Your task to perform on an android device: Open Chrome and go to the settings page Image 0: 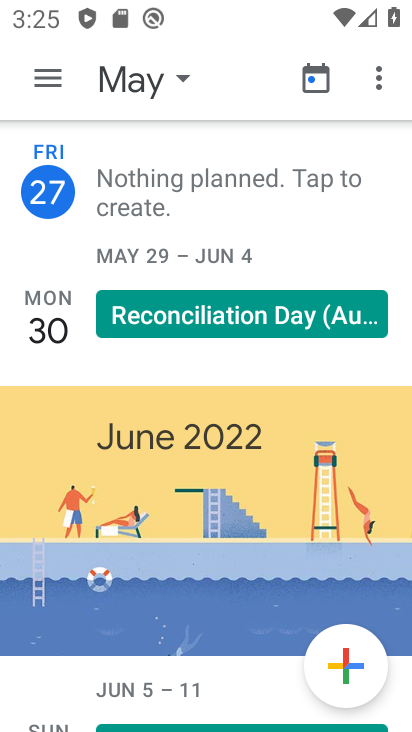
Step 0: press home button
Your task to perform on an android device: Open Chrome and go to the settings page Image 1: 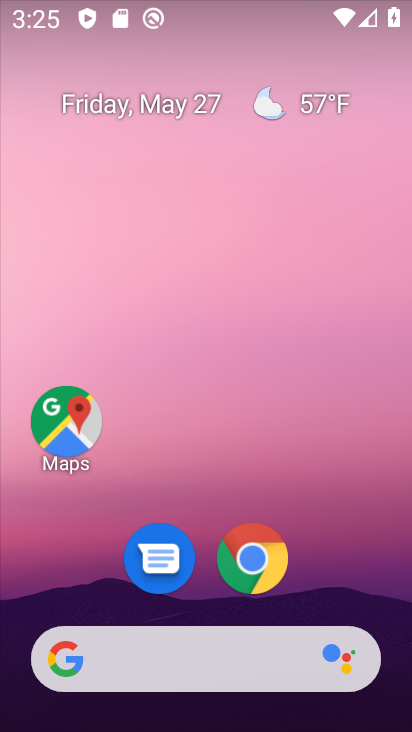
Step 1: click (265, 591)
Your task to perform on an android device: Open Chrome and go to the settings page Image 2: 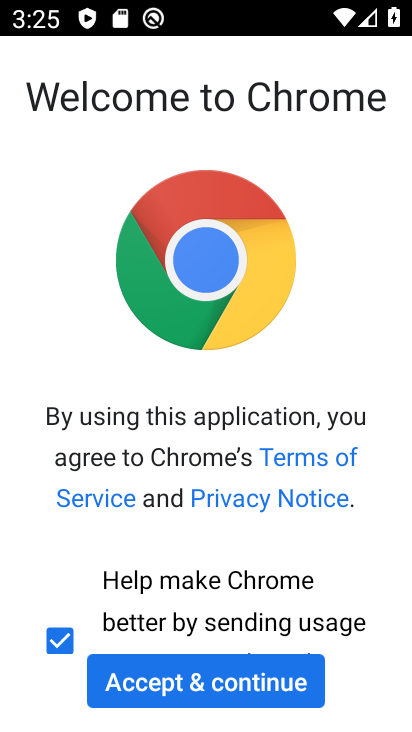
Step 2: click (173, 685)
Your task to perform on an android device: Open Chrome and go to the settings page Image 3: 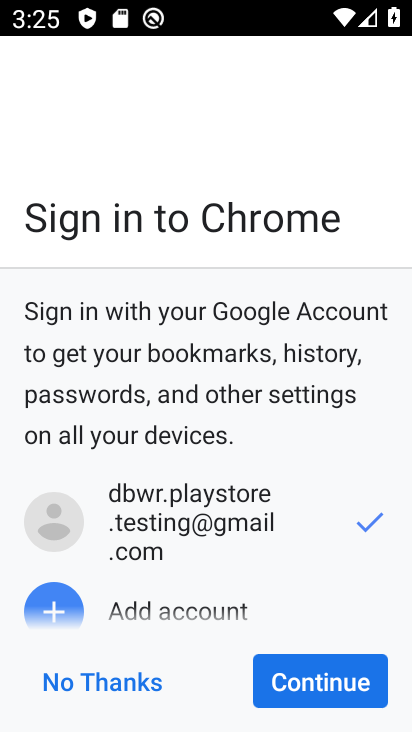
Step 3: click (286, 689)
Your task to perform on an android device: Open Chrome and go to the settings page Image 4: 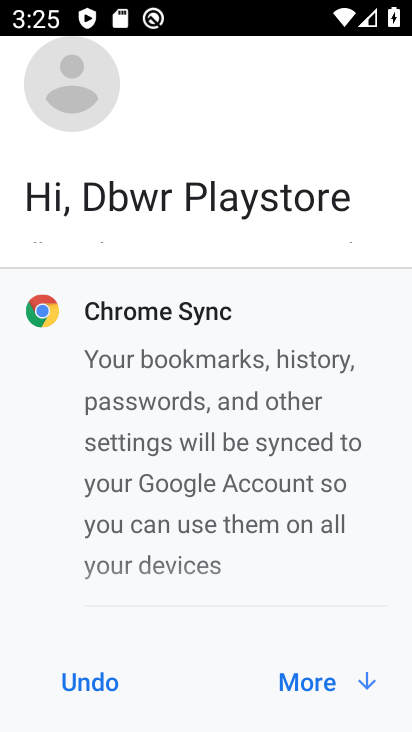
Step 4: click (286, 689)
Your task to perform on an android device: Open Chrome and go to the settings page Image 5: 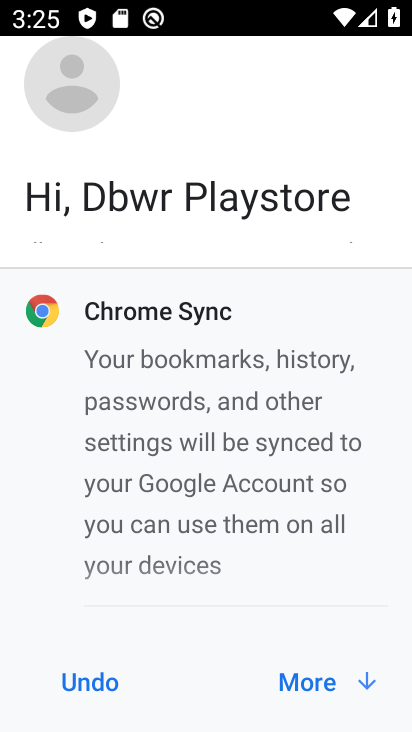
Step 5: click (286, 689)
Your task to perform on an android device: Open Chrome and go to the settings page Image 6: 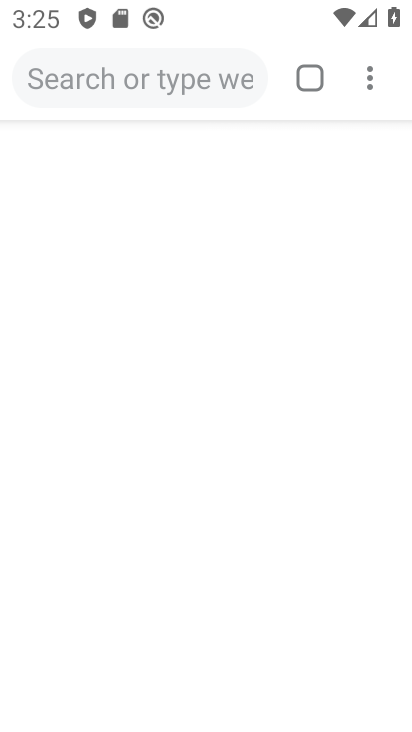
Step 6: click (286, 689)
Your task to perform on an android device: Open Chrome and go to the settings page Image 7: 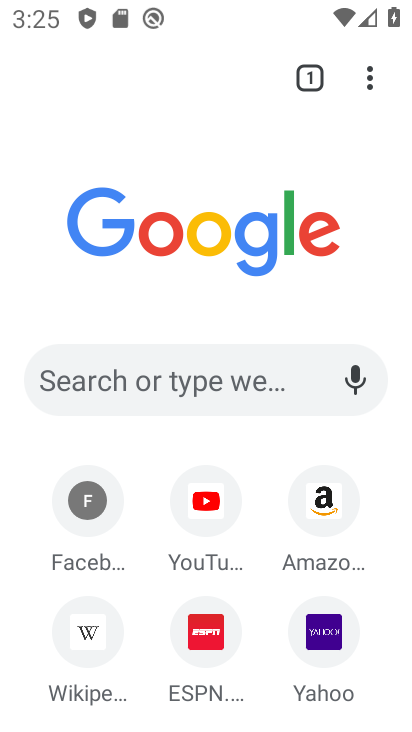
Step 7: click (380, 81)
Your task to perform on an android device: Open Chrome and go to the settings page Image 8: 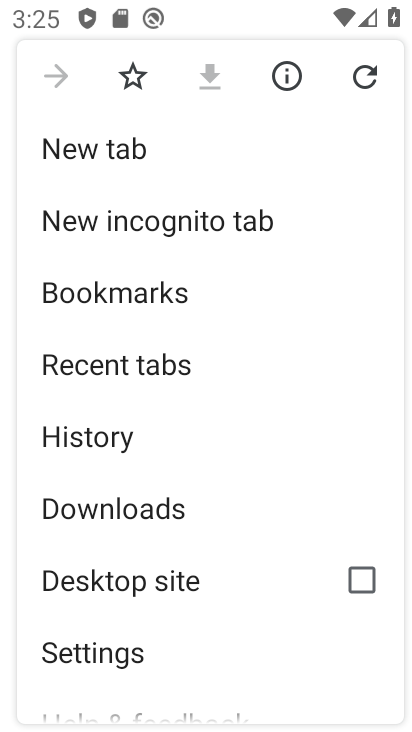
Step 8: click (171, 651)
Your task to perform on an android device: Open Chrome and go to the settings page Image 9: 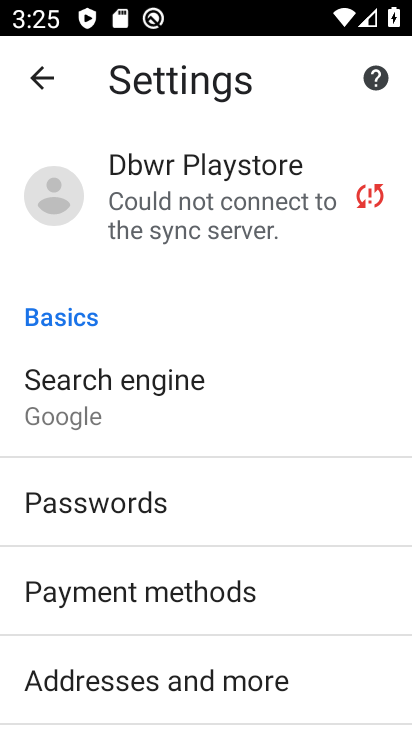
Step 9: drag from (264, 632) to (187, 150)
Your task to perform on an android device: Open Chrome and go to the settings page Image 10: 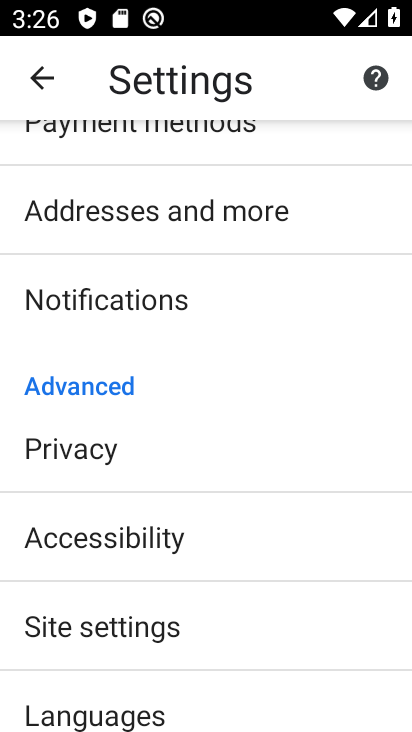
Step 10: click (185, 626)
Your task to perform on an android device: Open Chrome and go to the settings page Image 11: 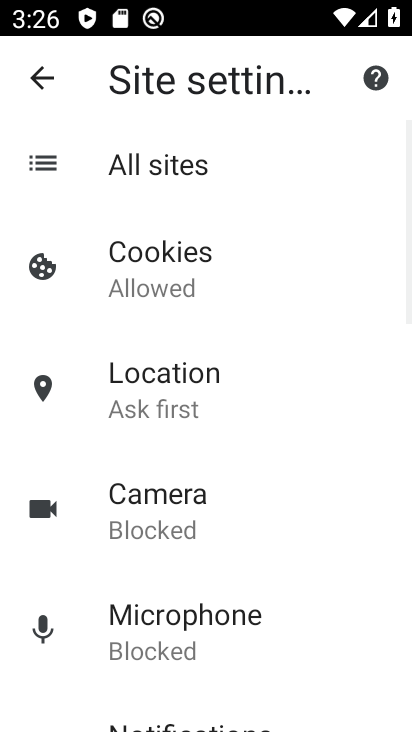
Step 11: task complete